Your task to perform on an android device: turn on showing notifications on the lock screen Image 0: 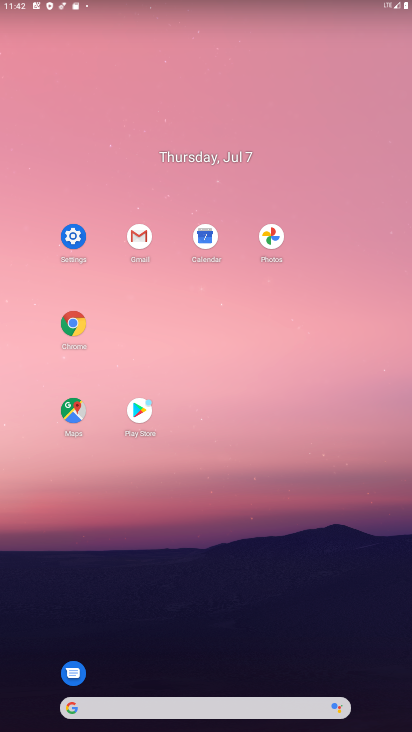
Step 0: click (72, 236)
Your task to perform on an android device: turn on showing notifications on the lock screen Image 1: 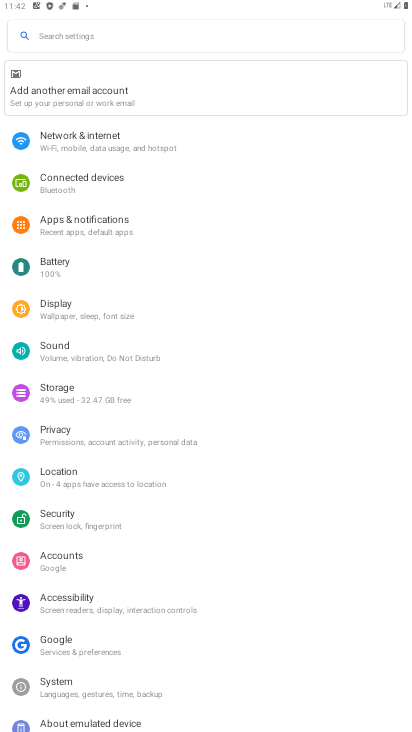
Step 1: click (154, 222)
Your task to perform on an android device: turn on showing notifications on the lock screen Image 2: 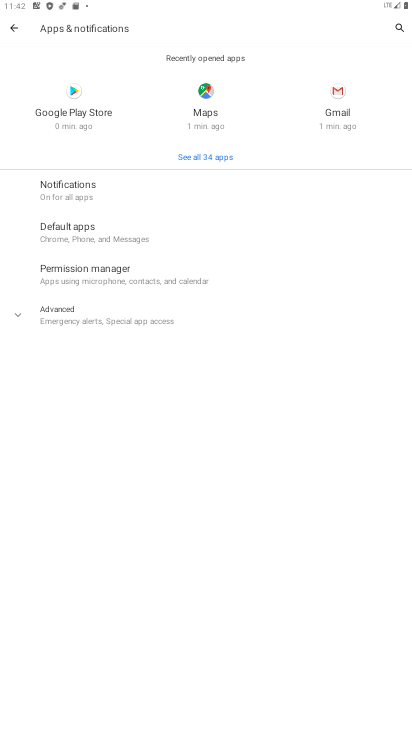
Step 2: click (146, 200)
Your task to perform on an android device: turn on showing notifications on the lock screen Image 3: 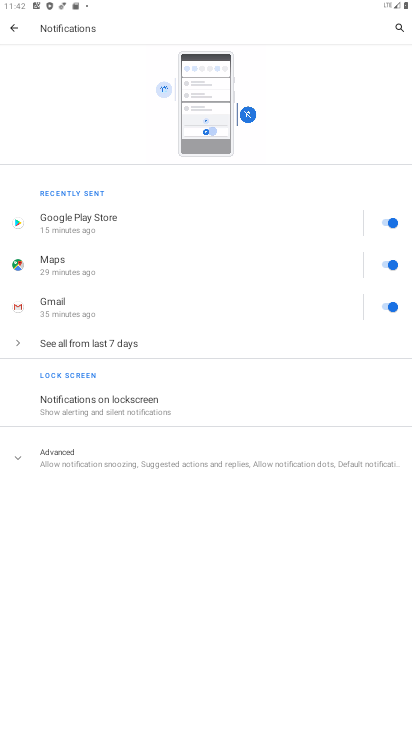
Step 3: click (196, 393)
Your task to perform on an android device: turn on showing notifications on the lock screen Image 4: 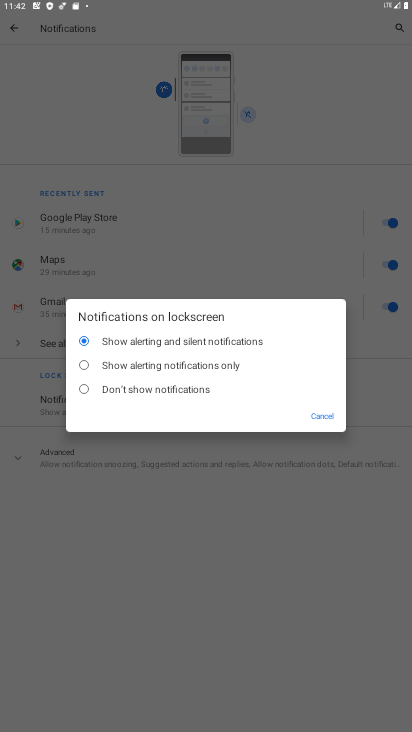
Step 4: task complete